Your task to perform on an android device: change alarm snooze length Image 0: 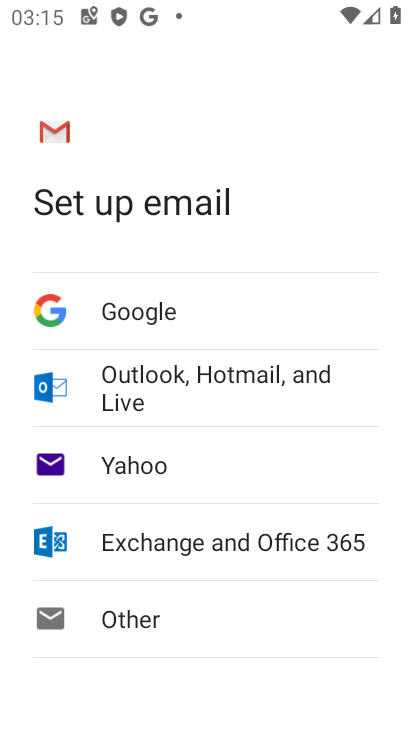
Step 0: press home button
Your task to perform on an android device: change alarm snooze length Image 1: 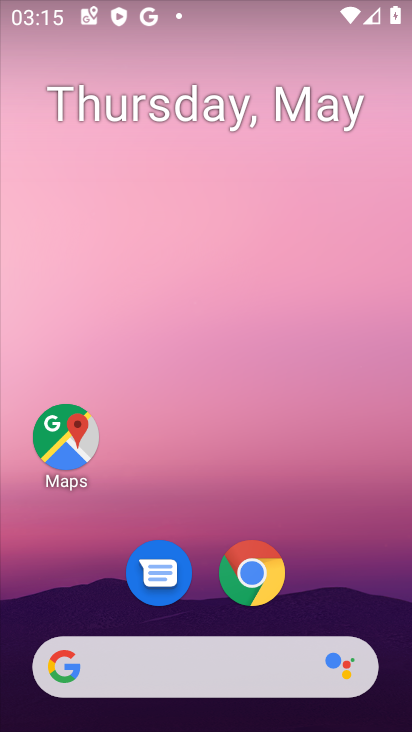
Step 1: drag from (320, 592) to (265, 182)
Your task to perform on an android device: change alarm snooze length Image 2: 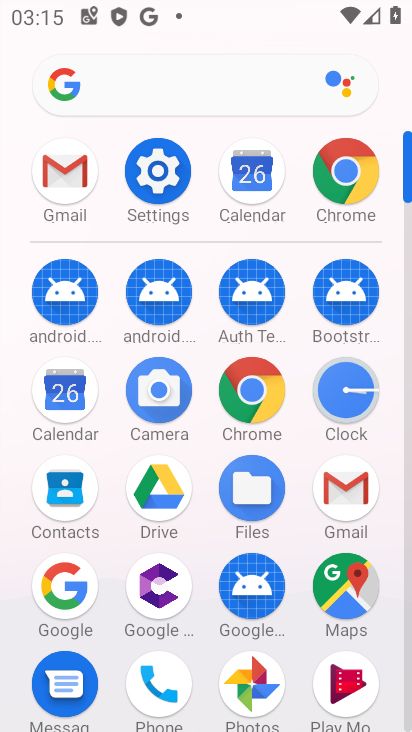
Step 2: click (338, 378)
Your task to perform on an android device: change alarm snooze length Image 3: 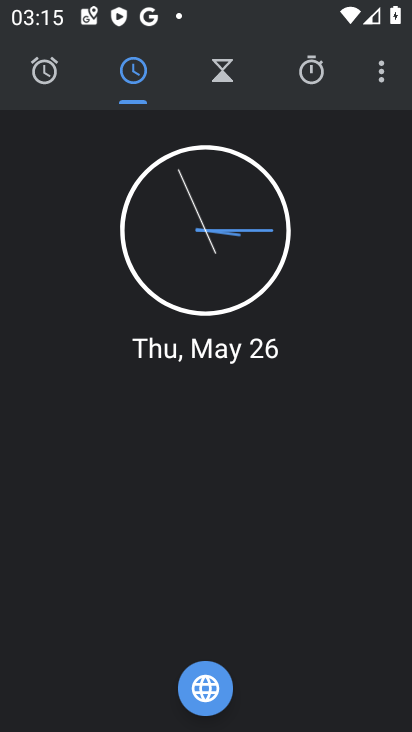
Step 3: click (371, 75)
Your task to perform on an android device: change alarm snooze length Image 4: 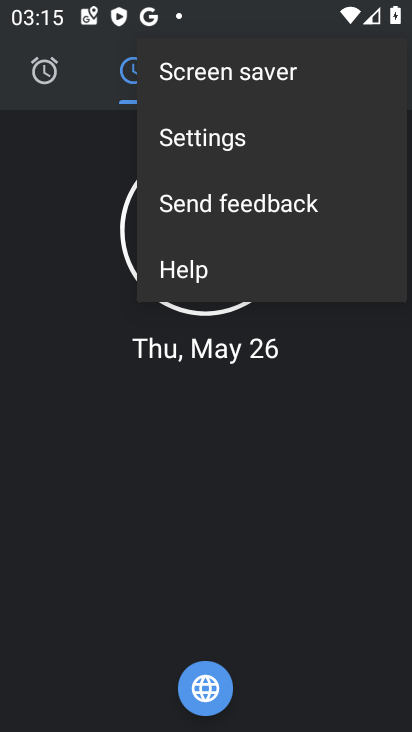
Step 4: click (253, 142)
Your task to perform on an android device: change alarm snooze length Image 5: 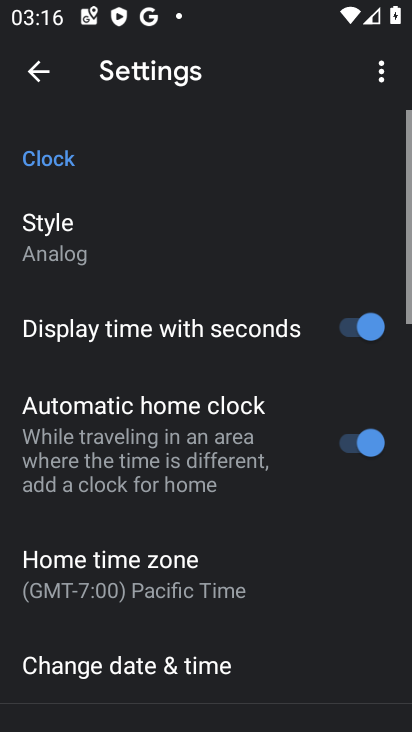
Step 5: drag from (154, 570) to (178, 201)
Your task to perform on an android device: change alarm snooze length Image 6: 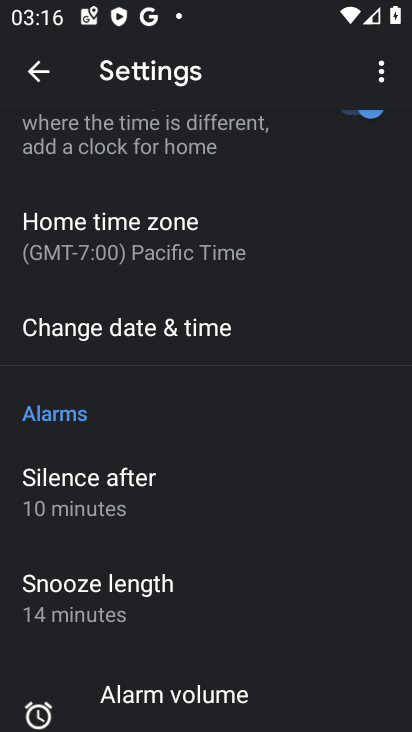
Step 6: click (130, 600)
Your task to perform on an android device: change alarm snooze length Image 7: 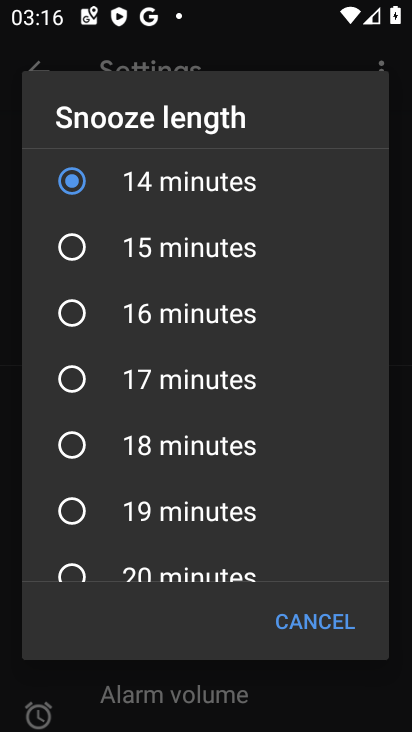
Step 7: click (198, 458)
Your task to perform on an android device: change alarm snooze length Image 8: 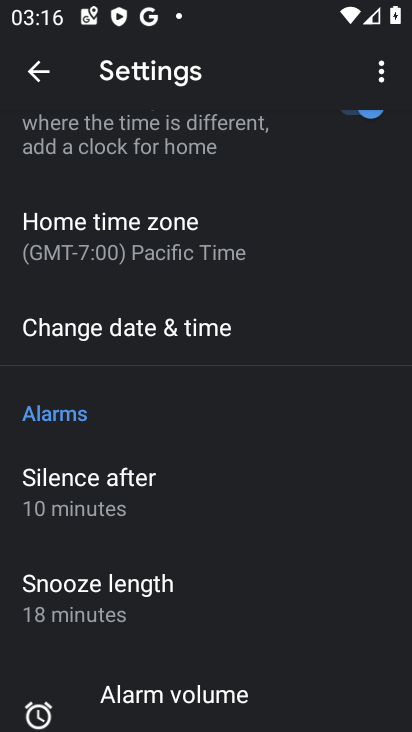
Step 8: task complete